Your task to perform on an android device: check out phone information Image 0: 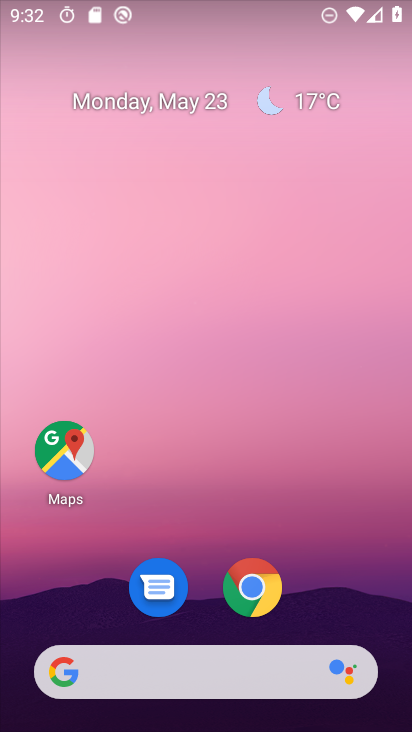
Step 0: drag from (177, 500) to (249, 69)
Your task to perform on an android device: check out phone information Image 1: 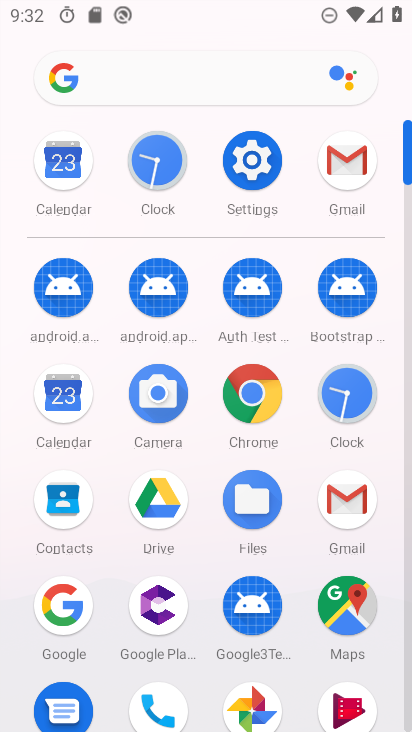
Step 1: click (239, 163)
Your task to perform on an android device: check out phone information Image 2: 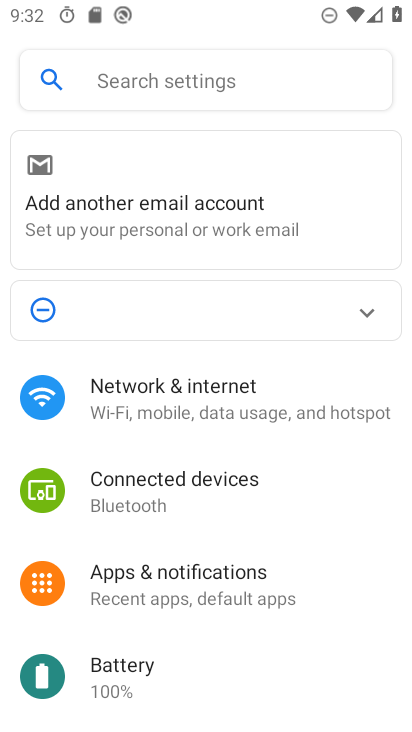
Step 2: drag from (166, 630) to (257, 115)
Your task to perform on an android device: check out phone information Image 3: 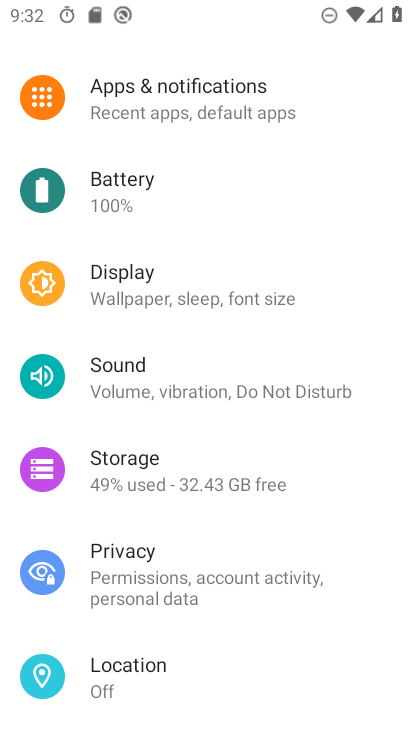
Step 3: drag from (136, 614) to (250, 89)
Your task to perform on an android device: check out phone information Image 4: 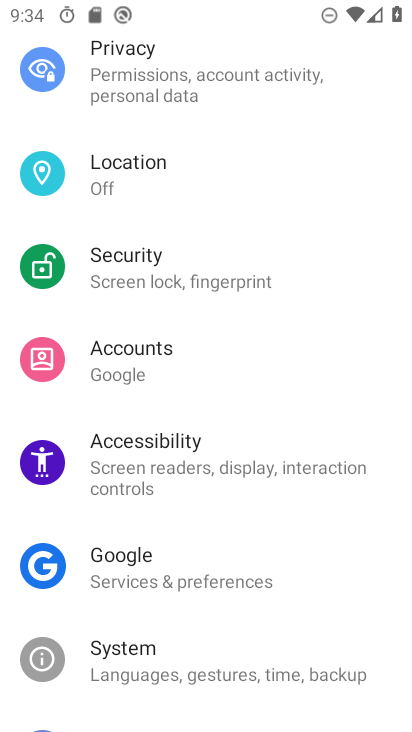
Step 4: drag from (184, 645) to (318, 36)
Your task to perform on an android device: check out phone information Image 5: 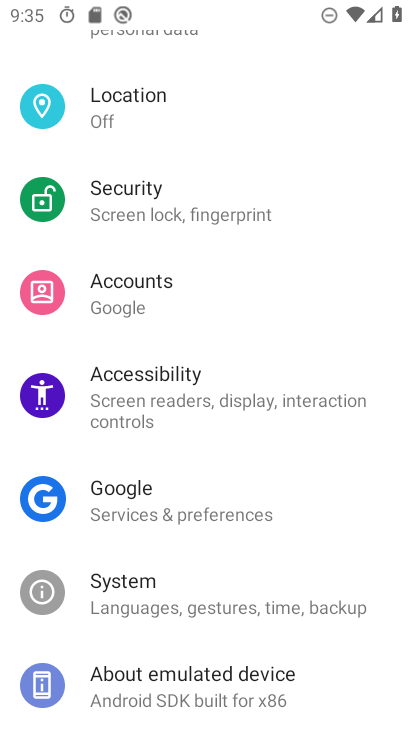
Step 5: drag from (183, 628) to (283, 18)
Your task to perform on an android device: check out phone information Image 6: 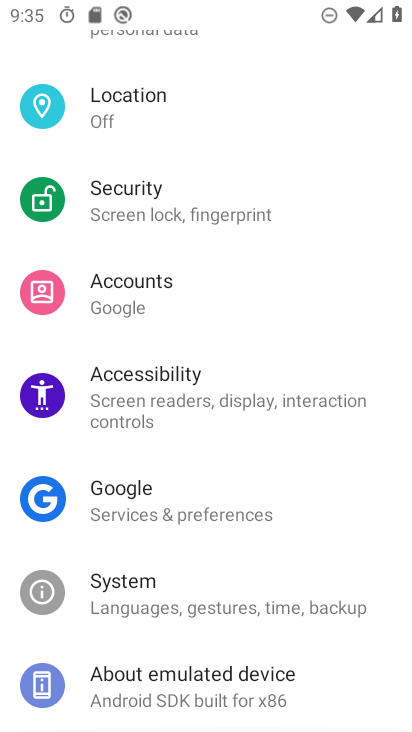
Step 6: click (183, 690)
Your task to perform on an android device: check out phone information Image 7: 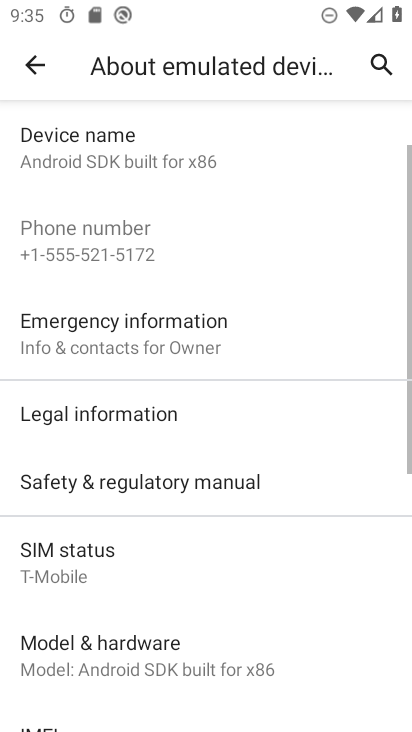
Step 7: task complete